Your task to perform on an android device: change the clock display to analog Image 0: 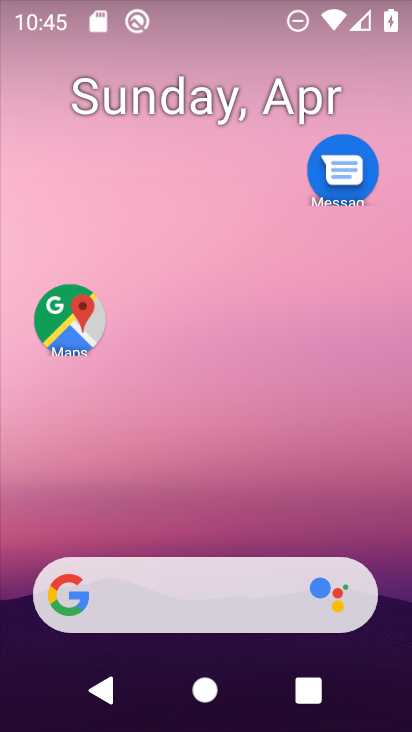
Step 0: drag from (198, 386) to (205, 175)
Your task to perform on an android device: change the clock display to analog Image 1: 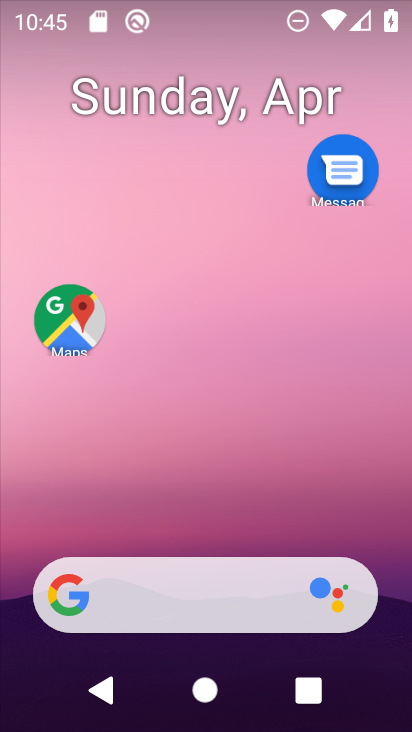
Step 1: drag from (162, 353) to (153, 122)
Your task to perform on an android device: change the clock display to analog Image 2: 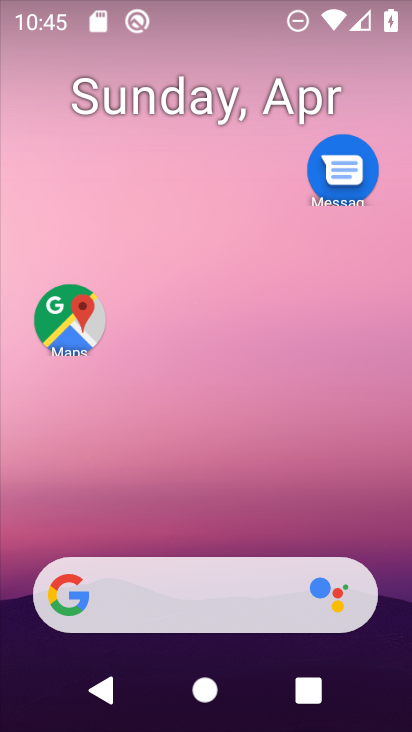
Step 2: drag from (188, 487) to (295, 55)
Your task to perform on an android device: change the clock display to analog Image 3: 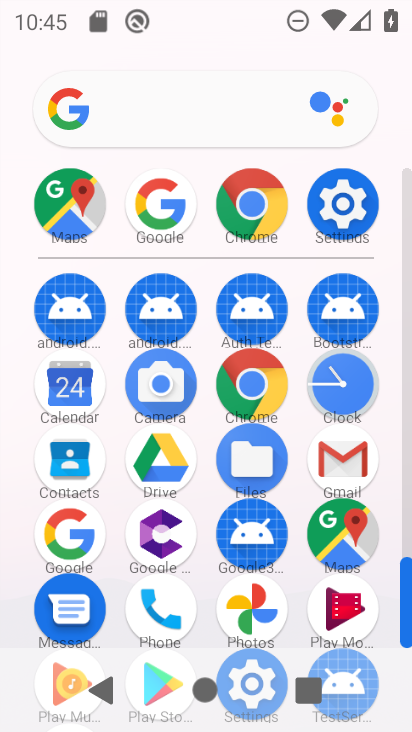
Step 3: click (340, 385)
Your task to perform on an android device: change the clock display to analog Image 4: 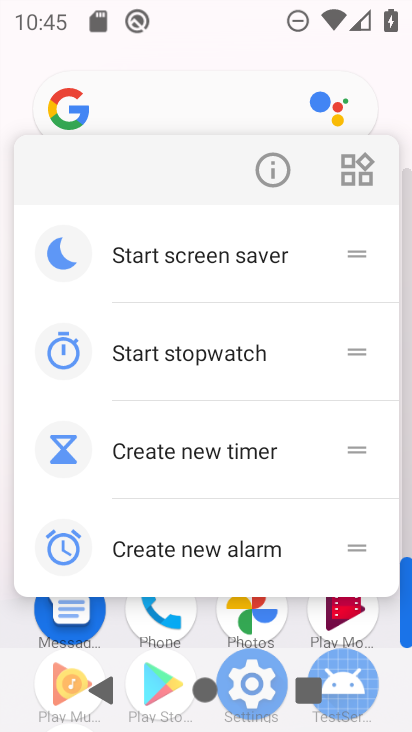
Step 4: click (273, 188)
Your task to perform on an android device: change the clock display to analog Image 5: 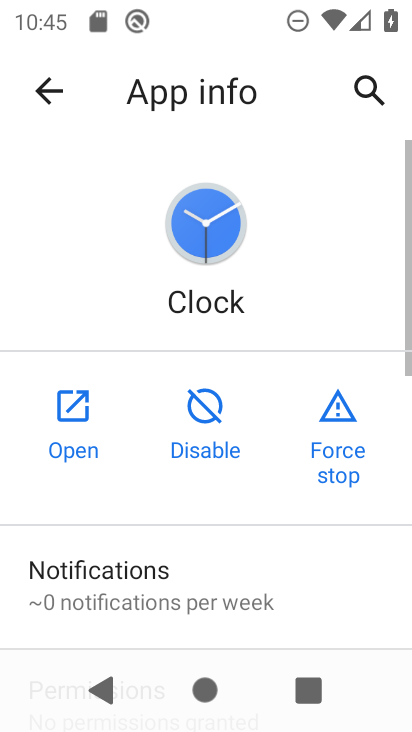
Step 5: click (60, 434)
Your task to perform on an android device: change the clock display to analog Image 6: 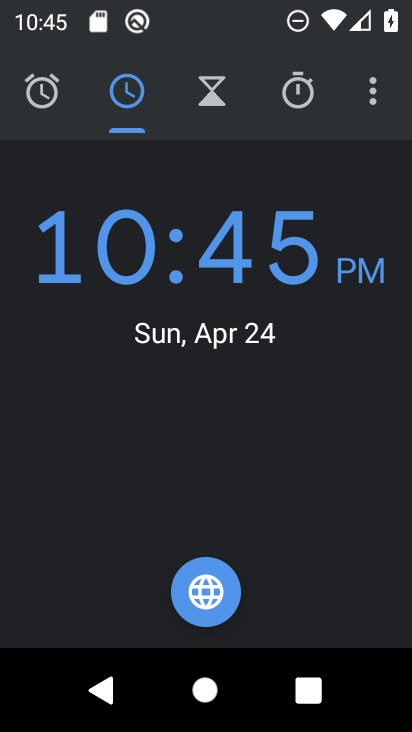
Step 6: click (381, 91)
Your task to perform on an android device: change the clock display to analog Image 7: 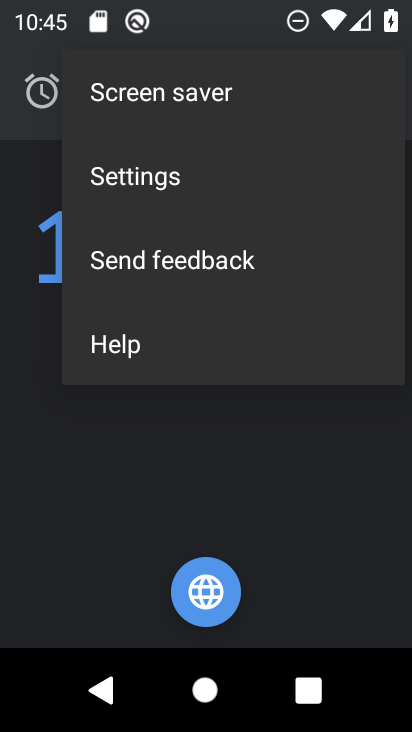
Step 7: click (171, 189)
Your task to perform on an android device: change the clock display to analog Image 8: 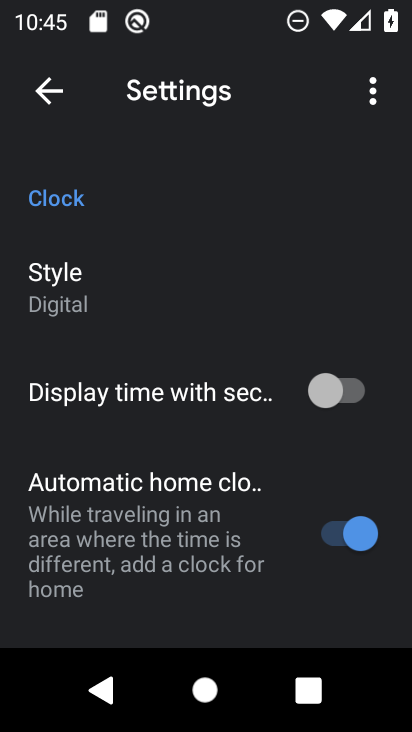
Step 8: click (67, 284)
Your task to perform on an android device: change the clock display to analog Image 9: 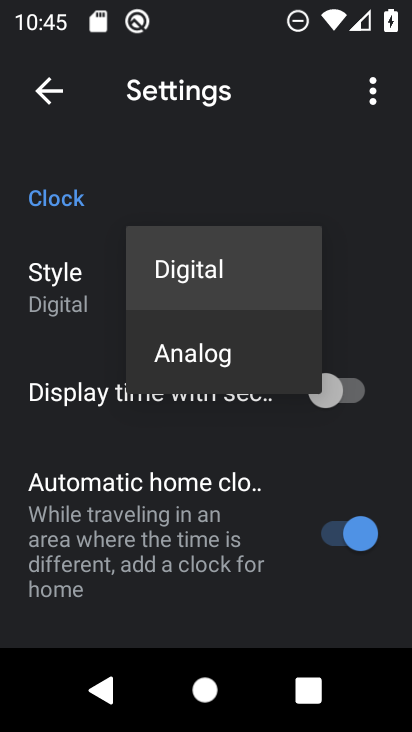
Step 9: click (220, 355)
Your task to perform on an android device: change the clock display to analog Image 10: 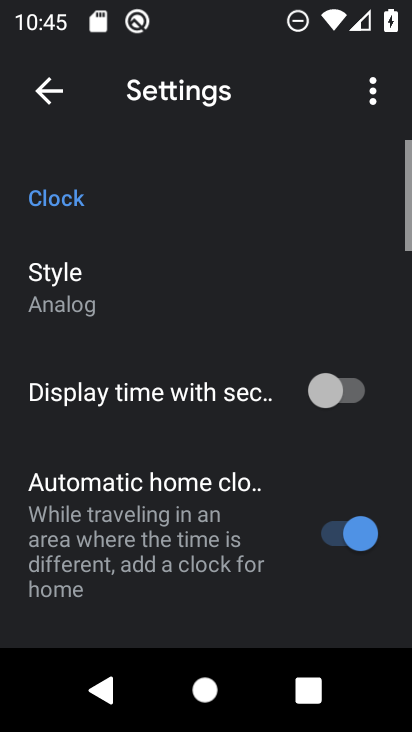
Step 10: task complete